Your task to perform on an android device: Open a new window in the chrome app Image 0: 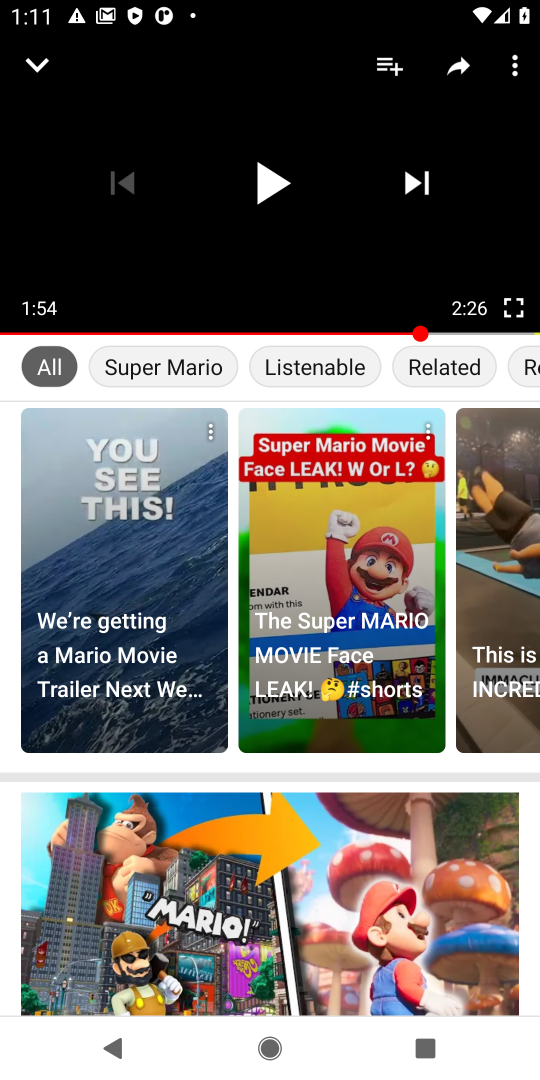
Step 0: press home button
Your task to perform on an android device: Open a new window in the chrome app Image 1: 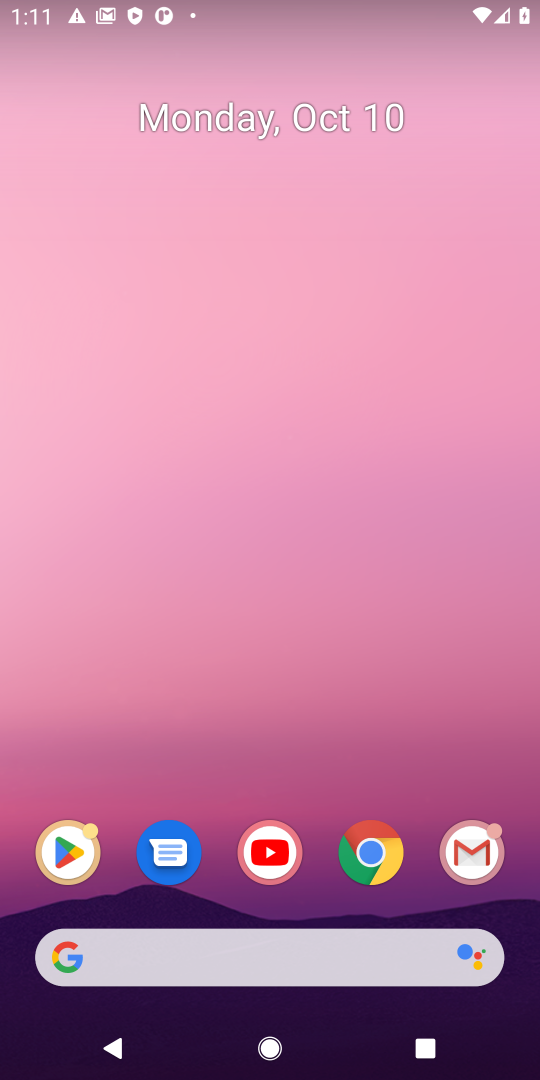
Step 1: click (398, 839)
Your task to perform on an android device: Open a new window in the chrome app Image 2: 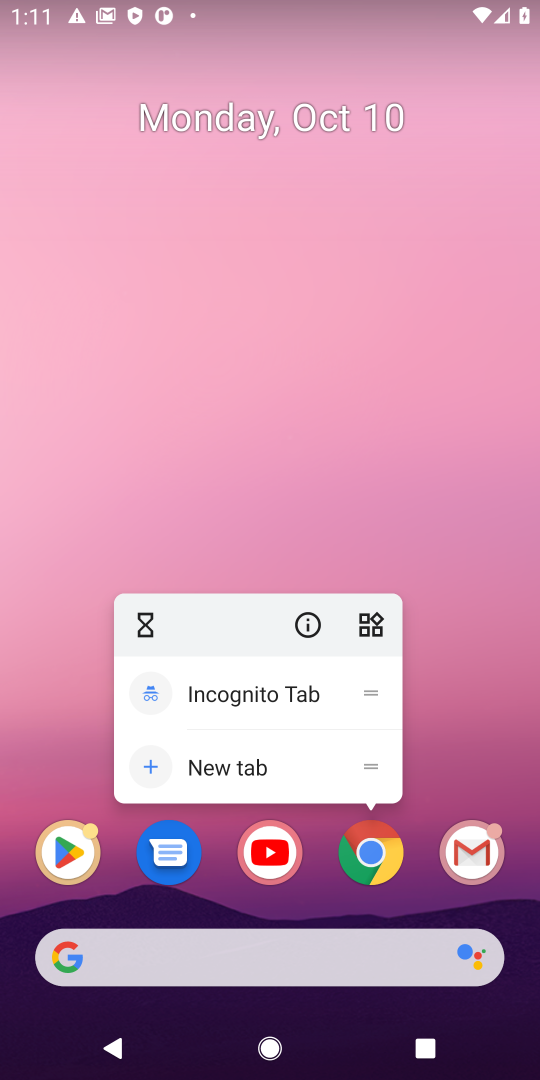
Step 2: click (539, 505)
Your task to perform on an android device: Open a new window in the chrome app Image 3: 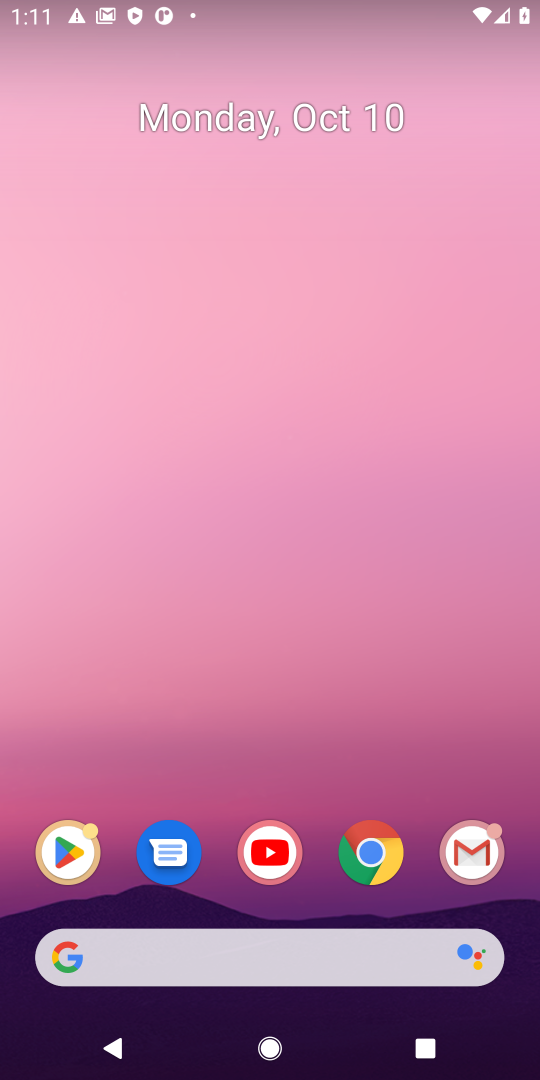
Step 3: click (352, 839)
Your task to perform on an android device: Open a new window in the chrome app Image 4: 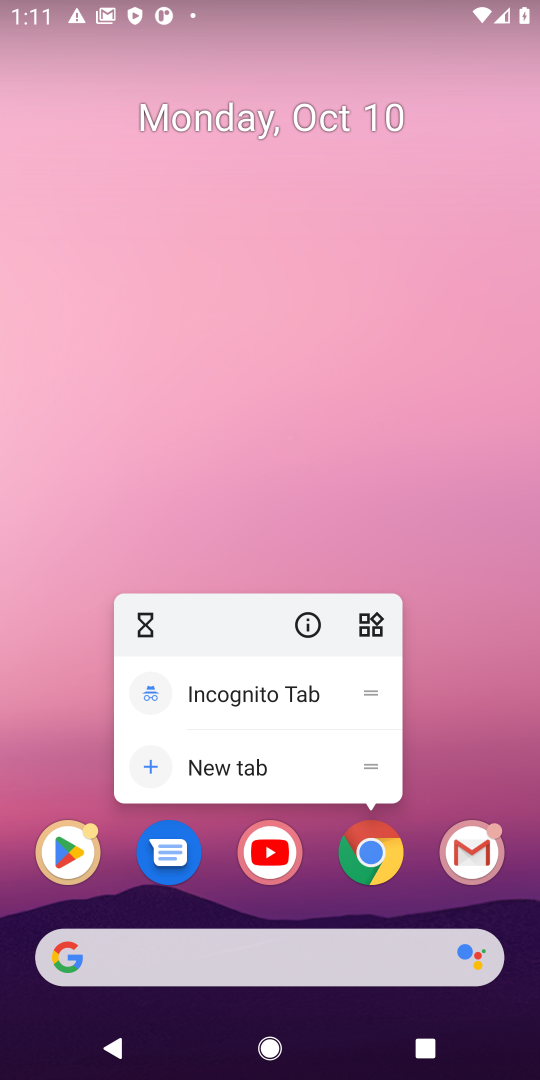
Step 4: click (360, 875)
Your task to perform on an android device: Open a new window in the chrome app Image 5: 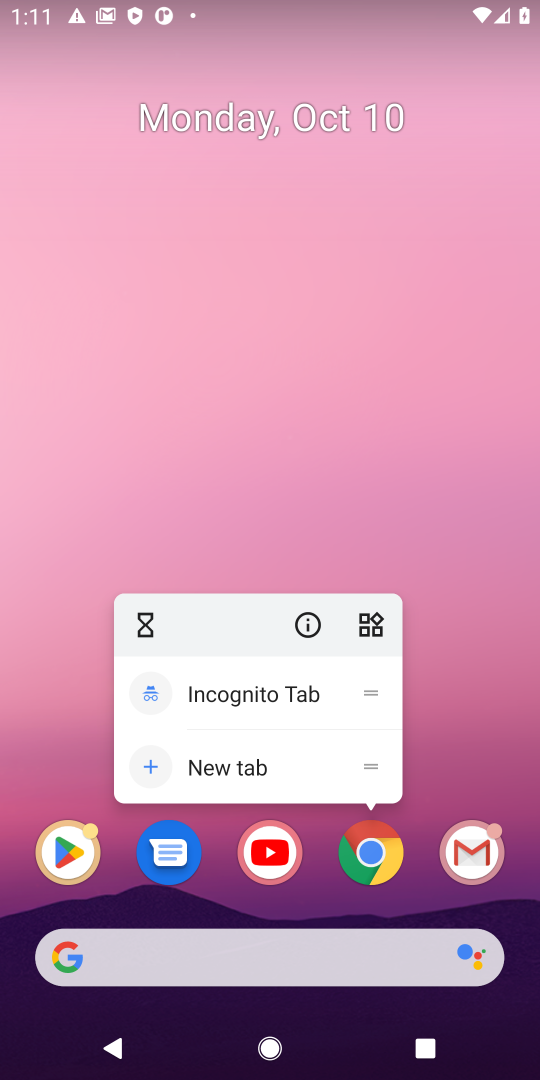
Step 5: click (330, 986)
Your task to perform on an android device: Open a new window in the chrome app Image 6: 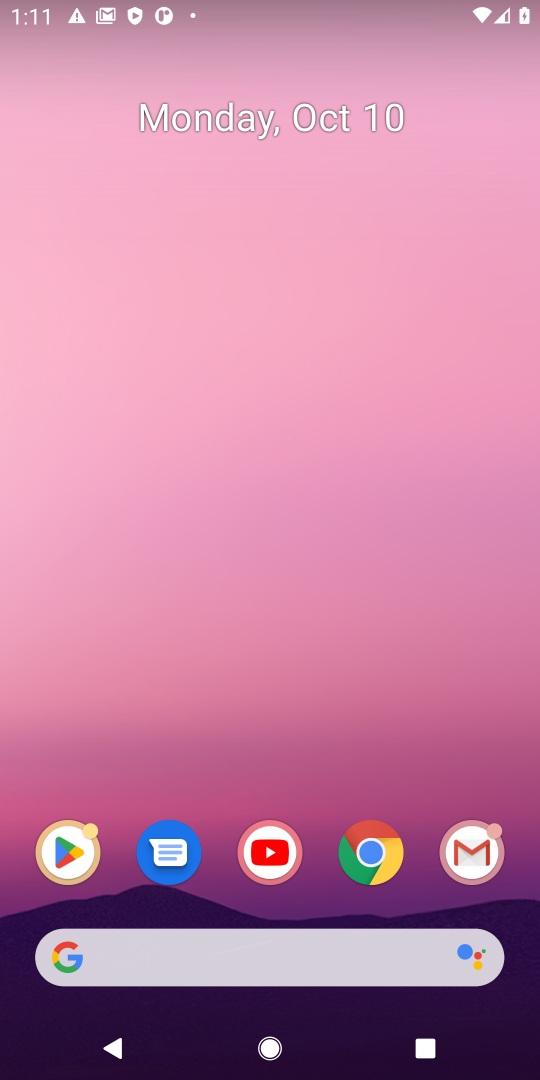
Step 6: click (389, 864)
Your task to perform on an android device: Open a new window in the chrome app Image 7: 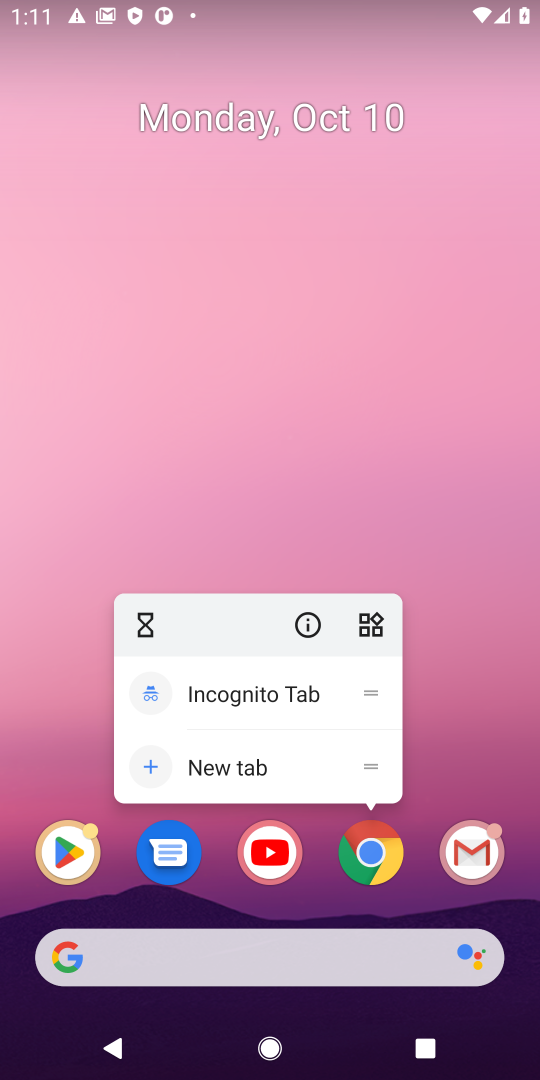
Step 7: click (310, 773)
Your task to perform on an android device: Open a new window in the chrome app Image 8: 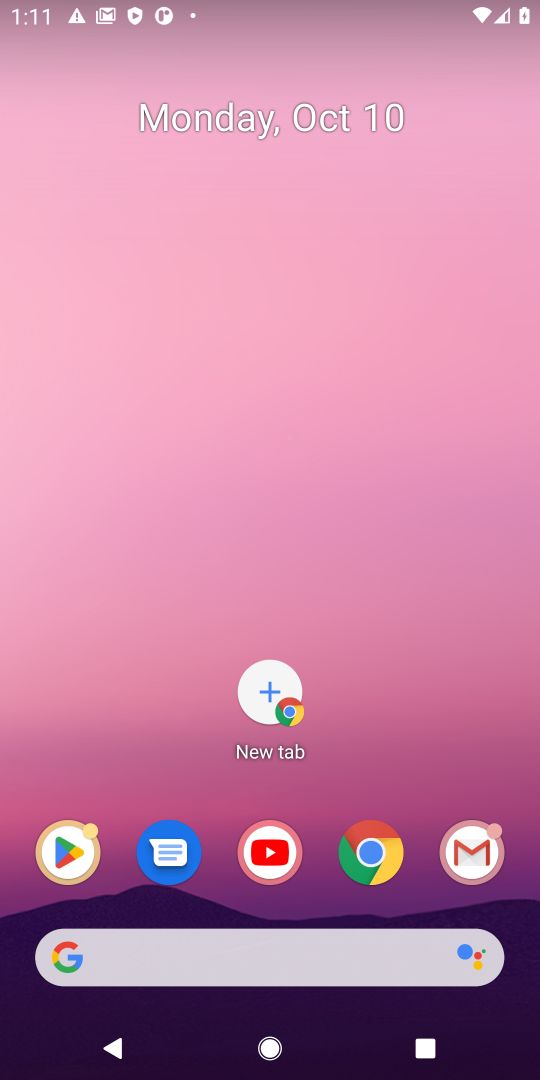
Step 8: click (286, 698)
Your task to perform on an android device: Open a new window in the chrome app Image 9: 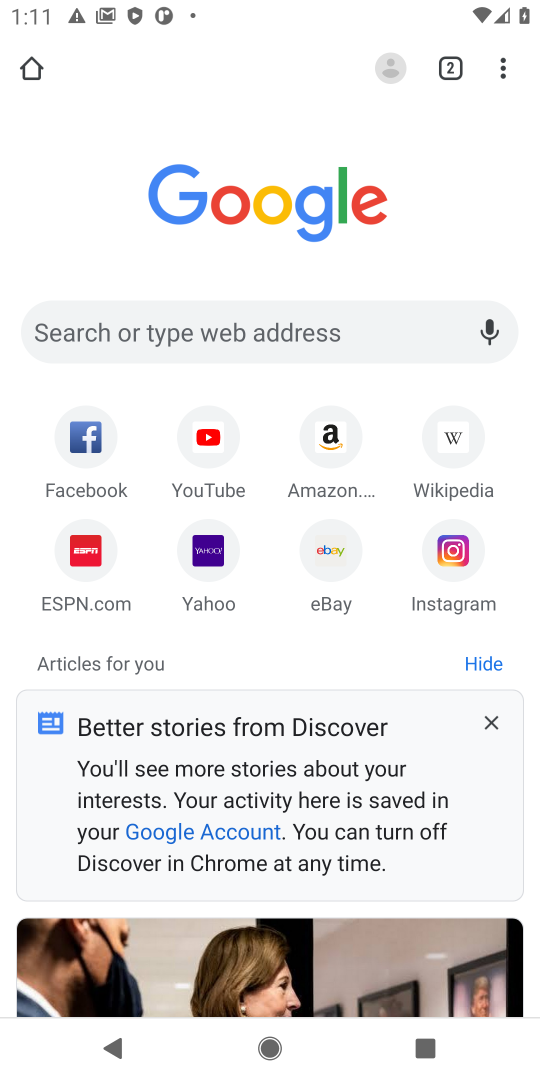
Step 9: click (219, 331)
Your task to perform on an android device: Open a new window in the chrome app Image 10: 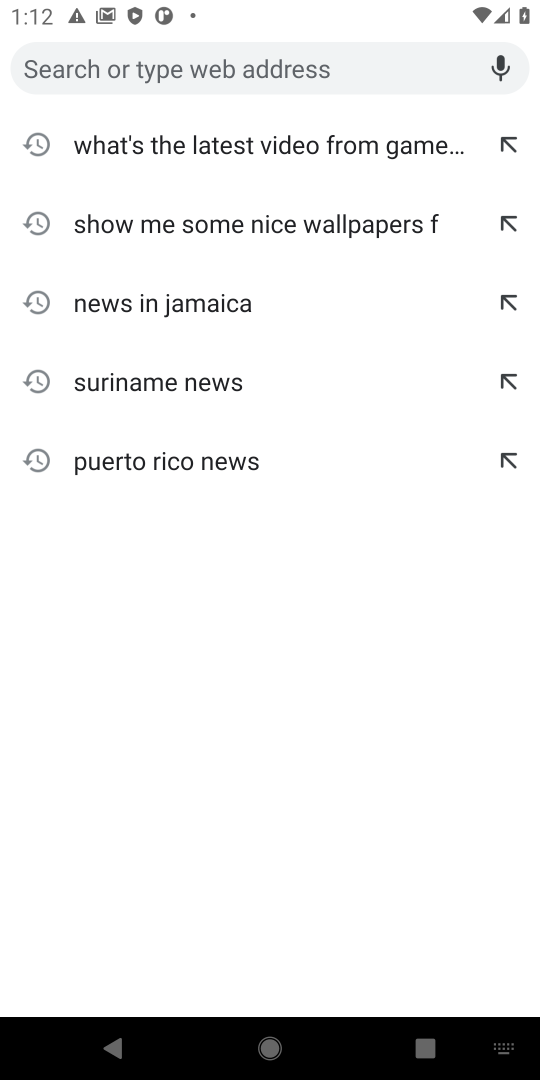
Step 10: type "mulayam singh"
Your task to perform on an android device: Open a new window in the chrome app Image 11: 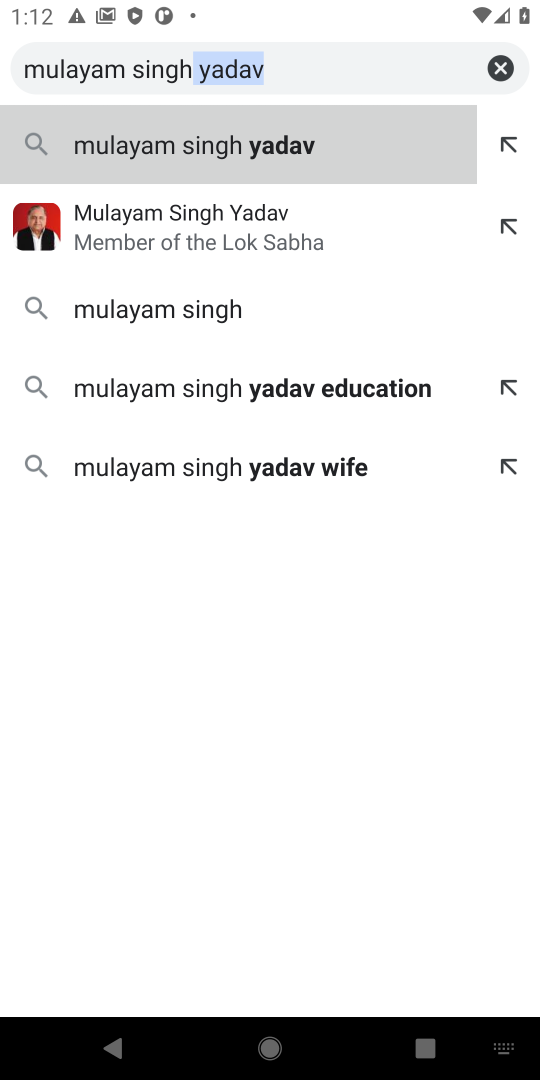
Step 11: click (174, 230)
Your task to perform on an android device: Open a new window in the chrome app Image 12: 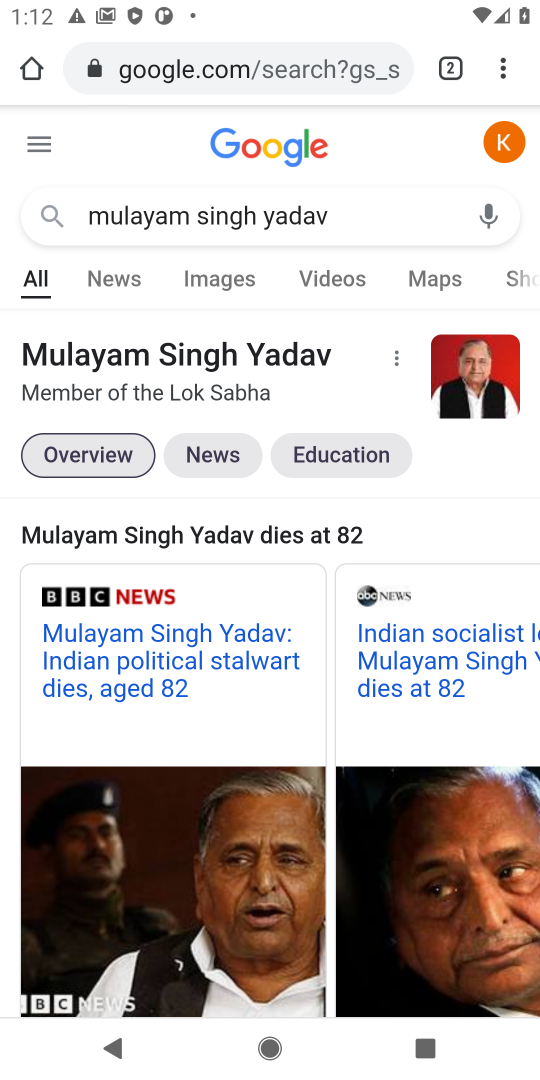
Step 12: drag from (366, 921) to (370, 592)
Your task to perform on an android device: Open a new window in the chrome app Image 13: 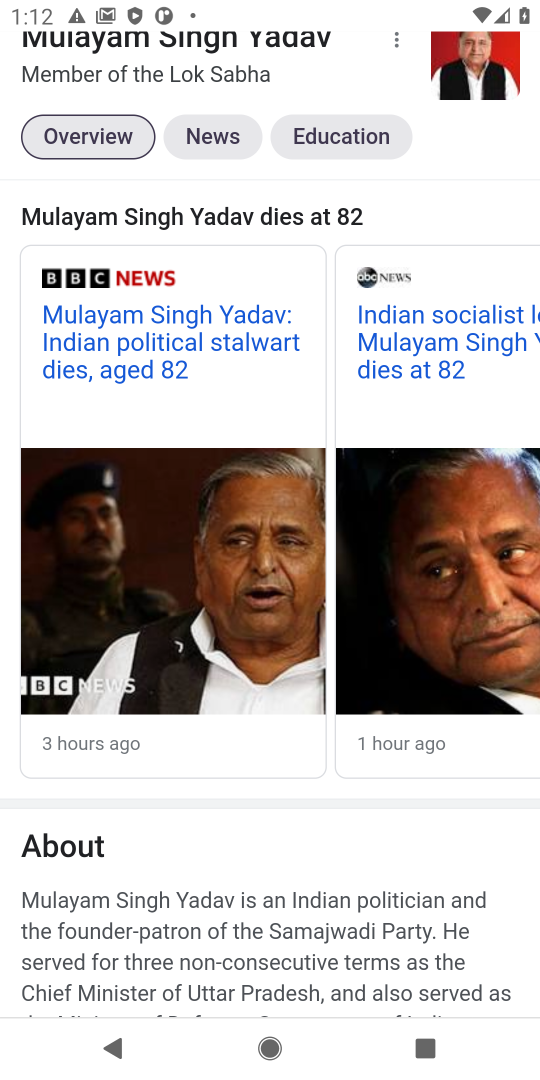
Step 13: click (147, 343)
Your task to perform on an android device: Open a new window in the chrome app Image 14: 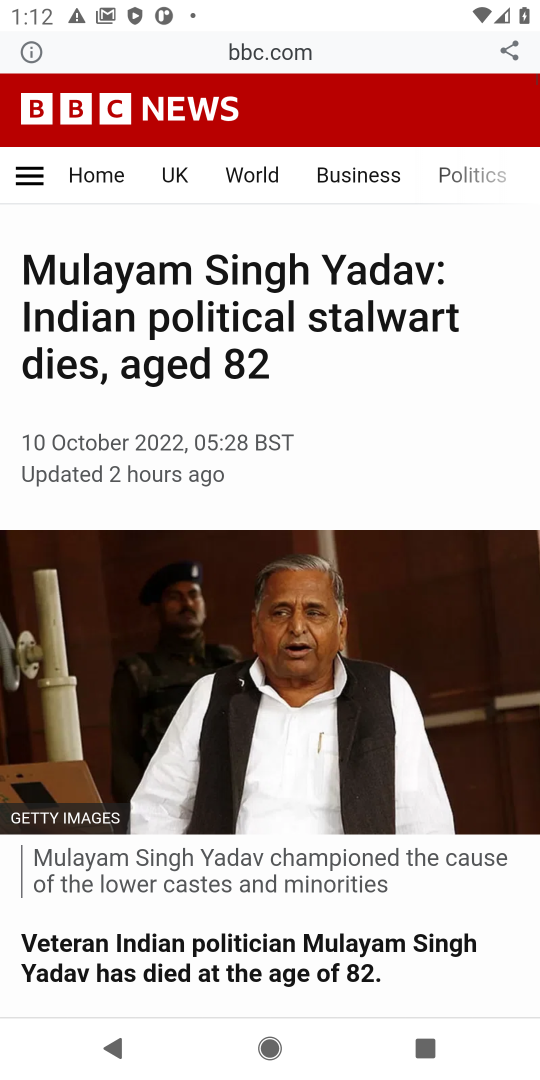
Step 14: task complete